Your task to perform on an android device: open sync settings in chrome Image 0: 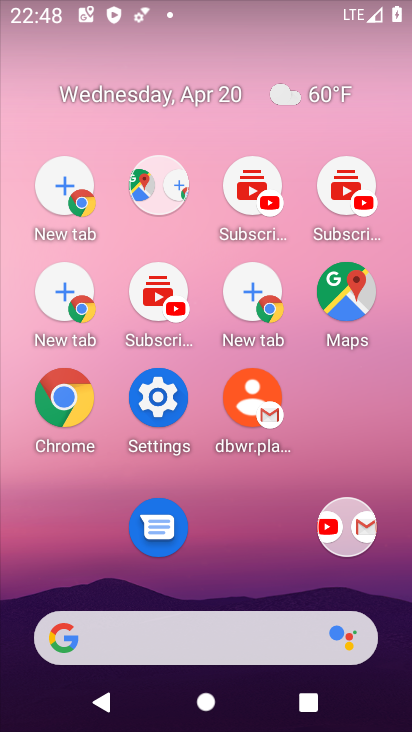
Step 0: drag from (244, 422) to (157, 130)
Your task to perform on an android device: open sync settings in chrome Image 1: 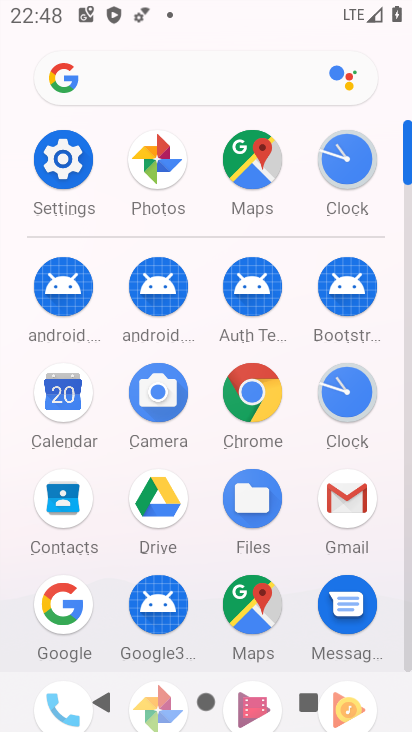
Step 1: click (244, 400)
Your task to perform on an android device: open sync settings in chrome Image 2: 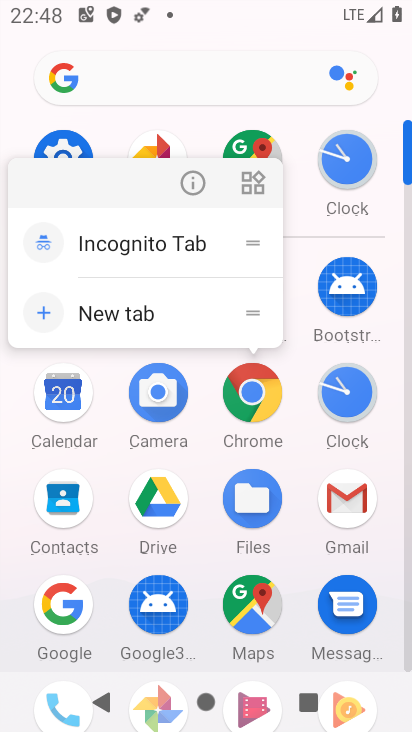
Step 2: click (249, 389)
Your task to perform on an android device: open sync settings in chrome Image 3: 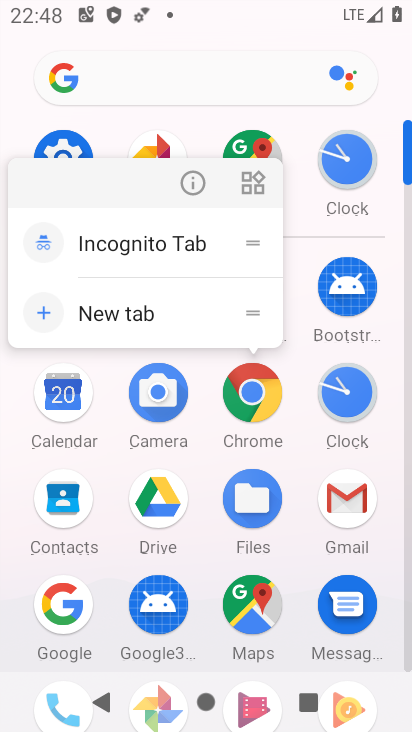
Step 3: click (248, 387)
Your task to perform on an android device: open sync settings in chrome Image 4: 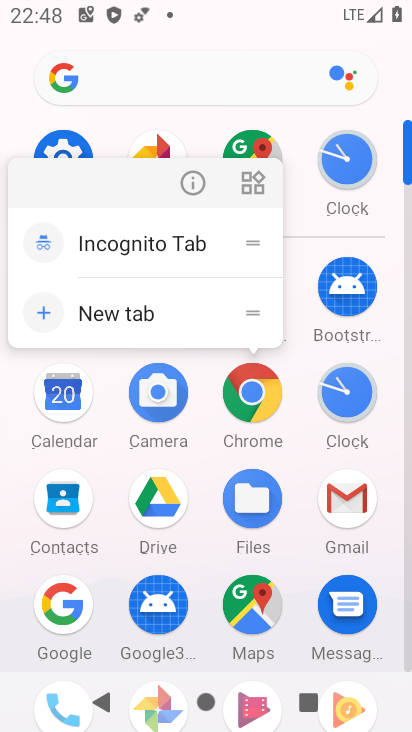
Step 4: click (249, 383)
Your task to perform on an android device: open sync settings in chrome Image 5: 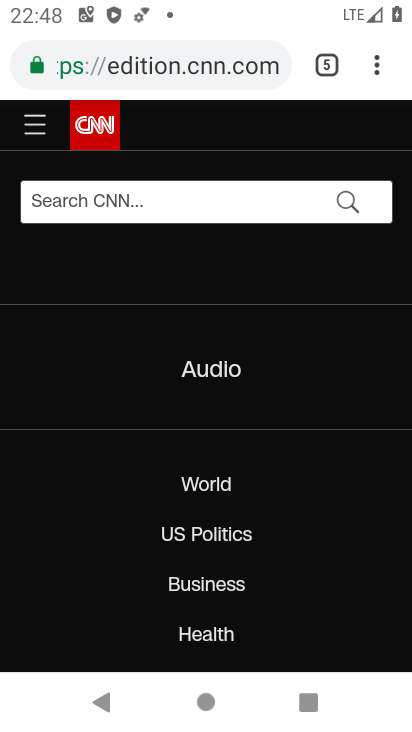
Step 5: drag from (372, 68) to (181, 253)
Your task to perform on an android device: open sync settings in chrome Image 6: 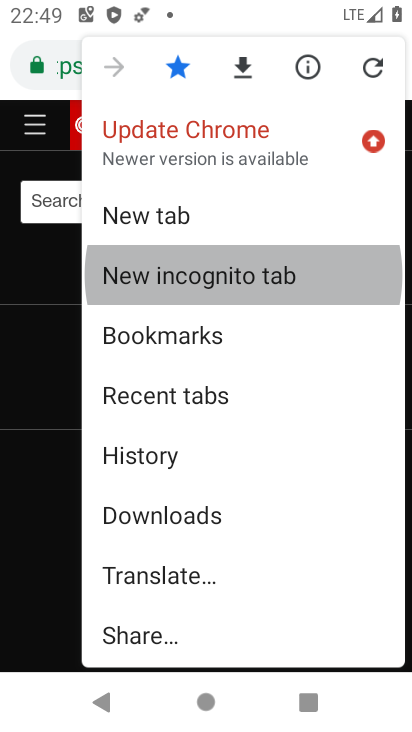
Step 6: drag from (238, 524) to (232, 176)
Your task to perform on an android device: open sync settings in chrome Image 7: 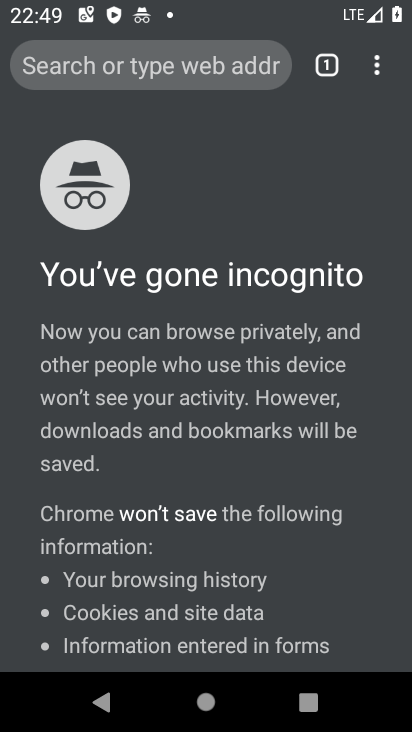
Step 7: drag from (374, 62) to (141, 580)
Your task to perform on an android device: open sync settings in chrome Image 8: 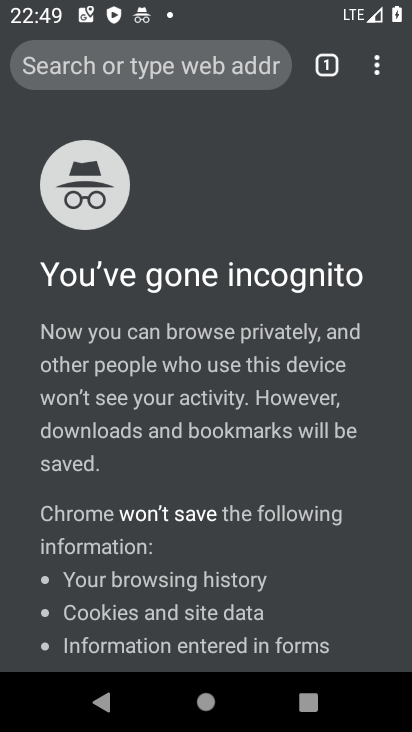
Step 8: click (158, 582)
Your task to perform on an android device: open sync settings in chrome Image 9: 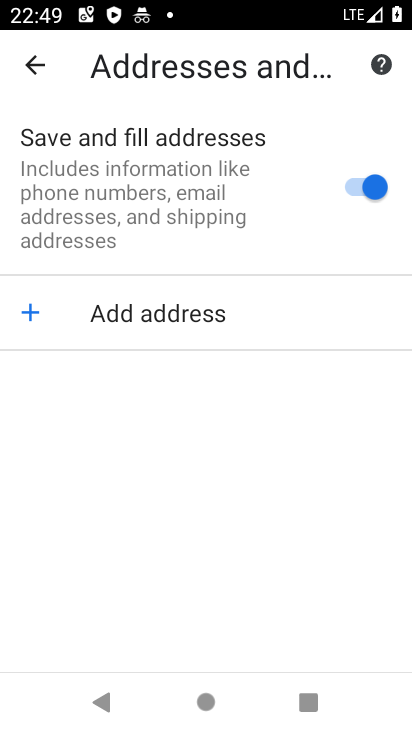
Step 9: click (33, 74)
Your task to perform on an android device: open sync settings in chrome Image 10: 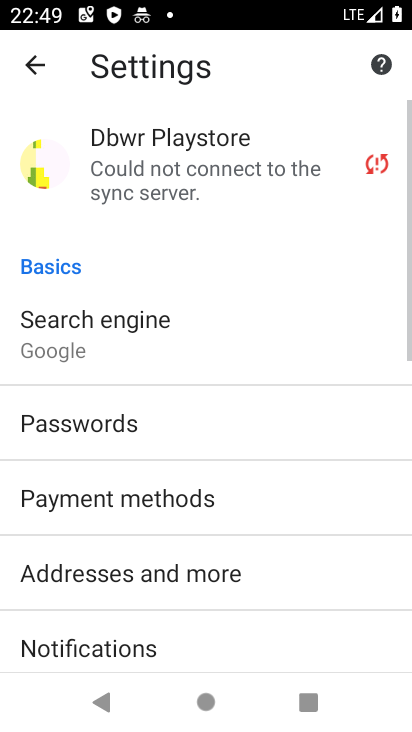
Step 10: drag from (295, 548) to (152, 108)
Your task to perform on an android device: open sync settings in chrome Image 11: 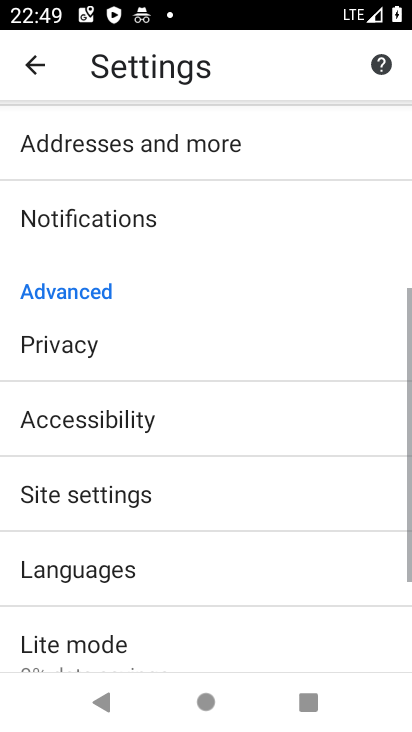
Step 11: drag from (207, 451) to (98, 90)
Your task to perform on an android device: open sync settings in chrome Image 12: 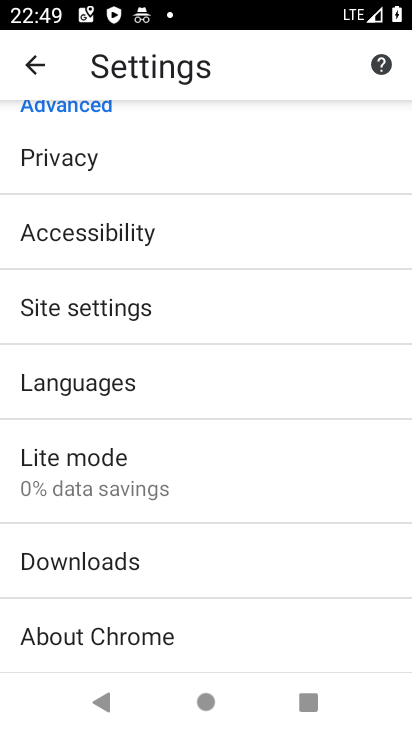
Step 12: click (59, 305)
Your task to perform on an android device: open sync settings in chrome Image 13: 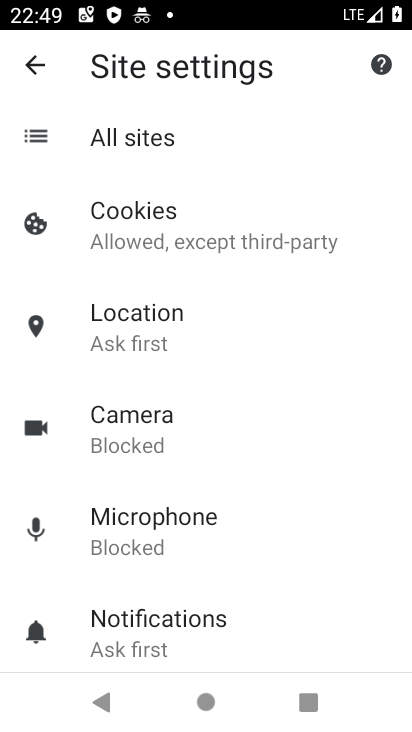
Step 13: drag from (165, 532) to (133, 163)
Your task to perform on an android device: open sync settings in chrome Image 14: 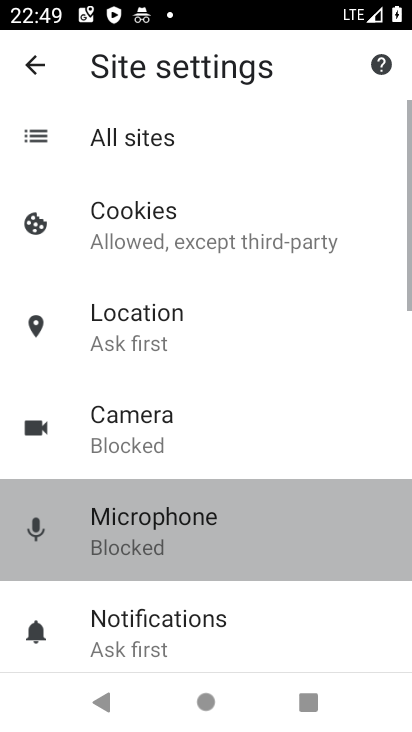
Step 14: drag from (239, 450) to (173, 75)
Your task to perform on an android device: open sync settings in chrome Image 15: 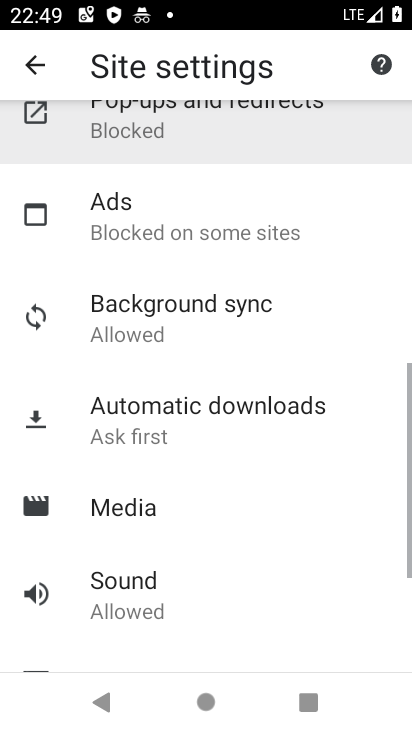
Step 15: drag from (256, 479) to (176, 0)
Your task to perform on an android device: open sync settings in chrome Image 16: 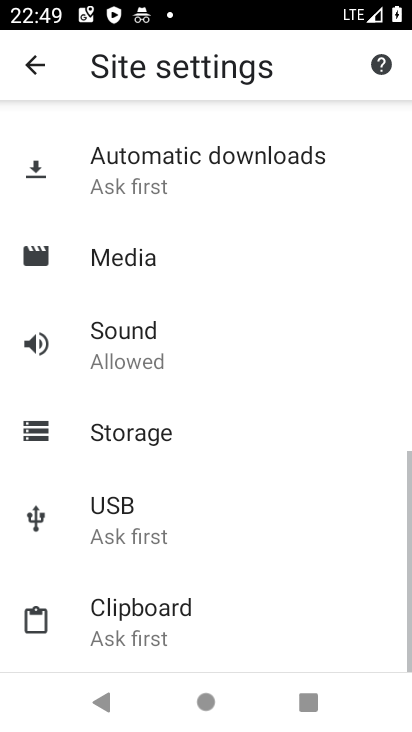
Step 16: drag from (212, 498) to (164, 119)
Your task to perform on an android device: open sync settings in chrome Image 17: 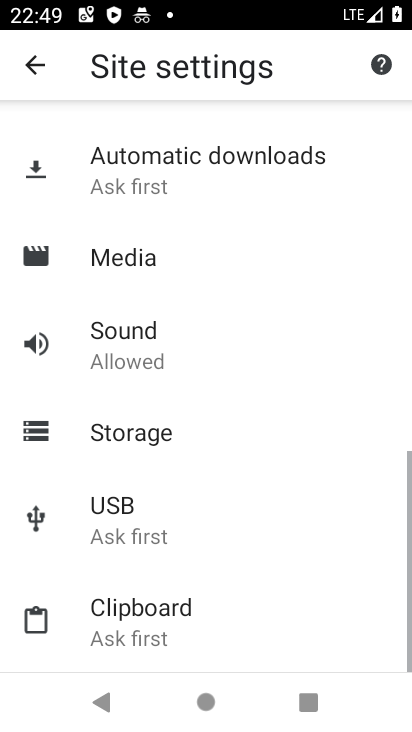
Step 17: drag from (172, 195) to (232, 561)
Your task to perform on an android device: open sync settings in chrome Image 18: 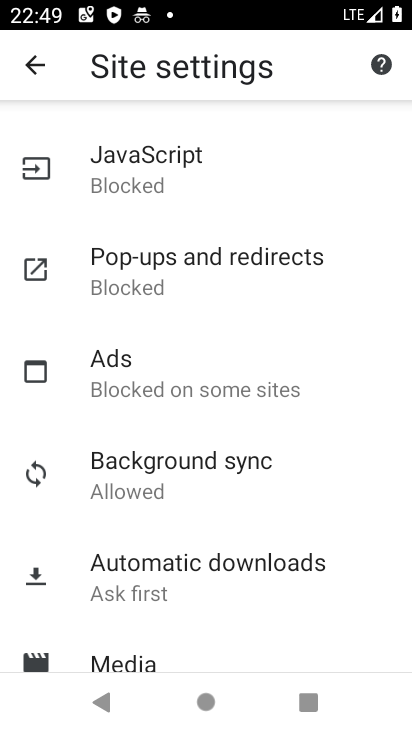
Step 18: click (156, 471)
Your task to perform on an android device: open sync settings in chrome Image 19: 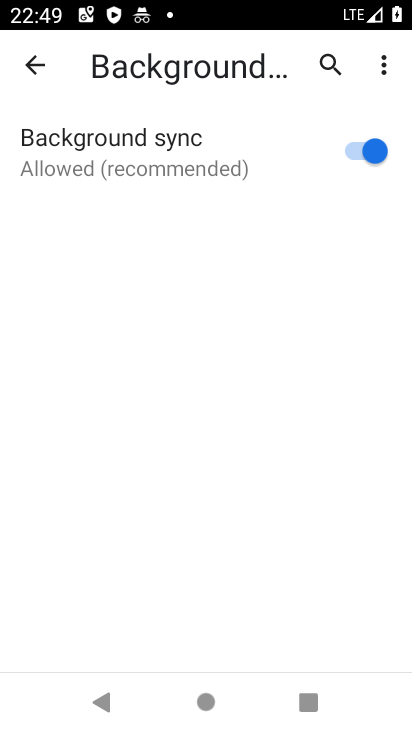
Step 19: click (149, 467)
Your task to perform on an android device: open sync settings in chrome Image 20: 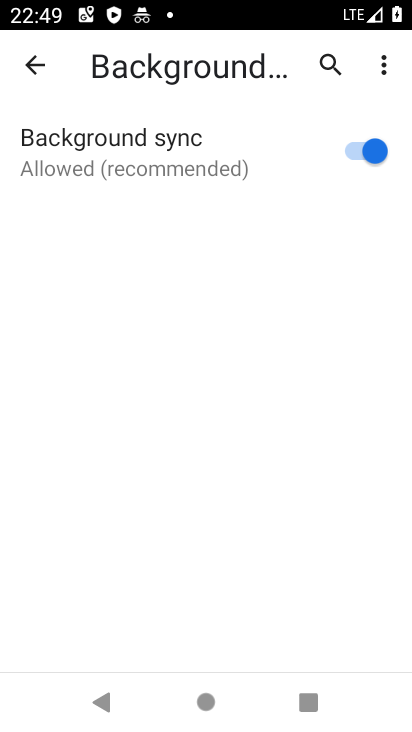
Step 20: click (354, 144)
Your task to perform on an android device: open sync settings in chrome Image 21: 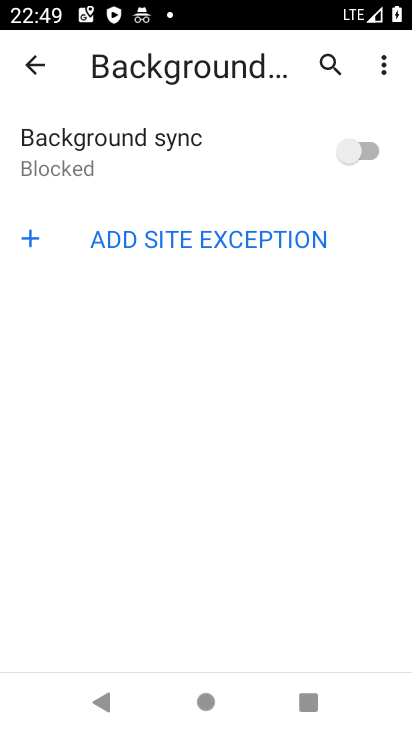
Step 21: click (355, 144)
Your task to perform on an android device: open sync settings in chrome Image 22: 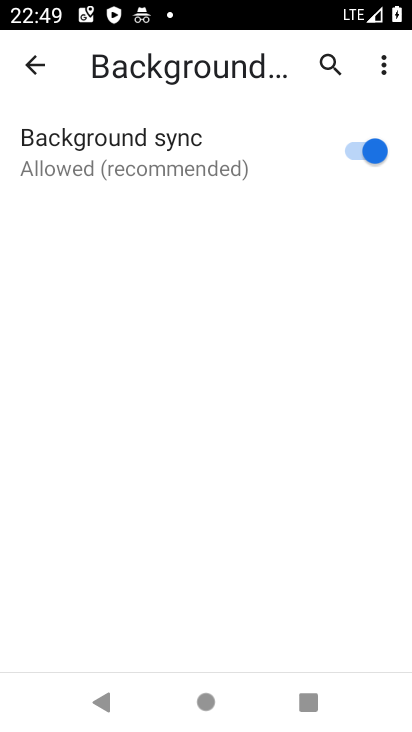
Step 22: task complete